Your task to perform on an android device: see sites visited before in the chrome app Image 0: 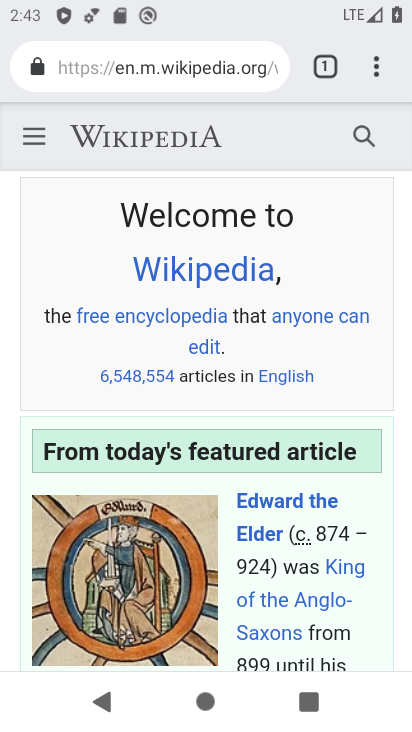
Step 0: click (374, 71)
Your task to perform on an android device: see sites visited before in the chrome app Image 1: 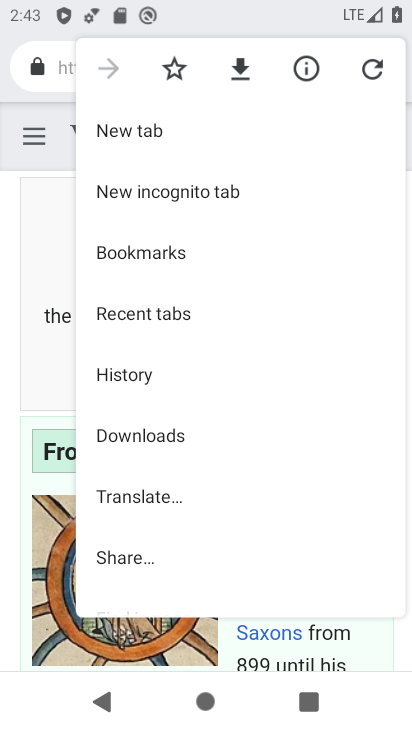
Step 1: click (163, 307)
Your task to perform on an android device: see sites visited before in the chrome app Image 2: 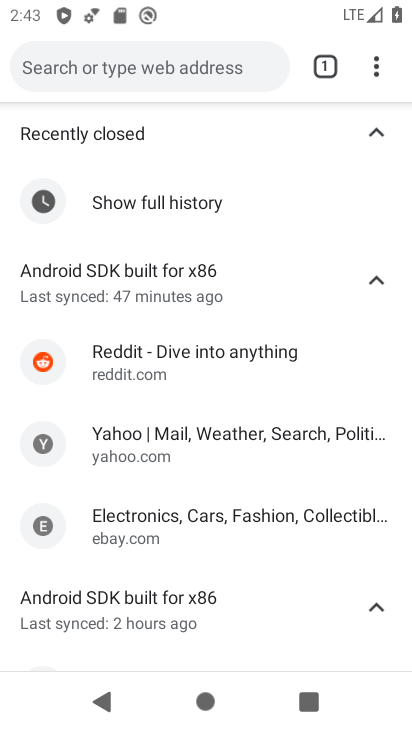
Step 2: task complete